Your task to perform on an android device: What is the news today? Image 0: 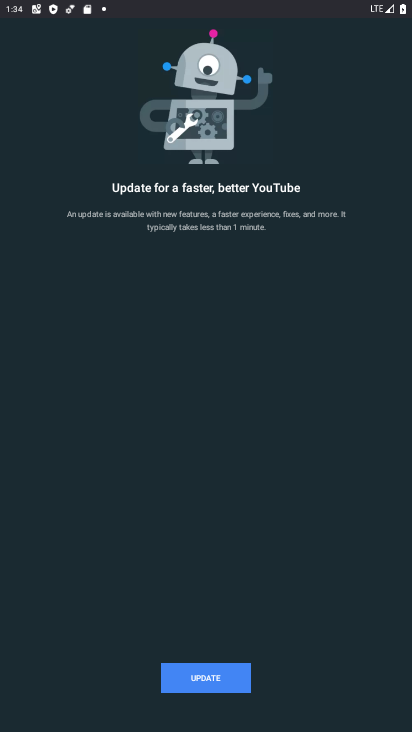
Step 0: press home button
Your task to perform on an android device: What is the news today? Image 1: 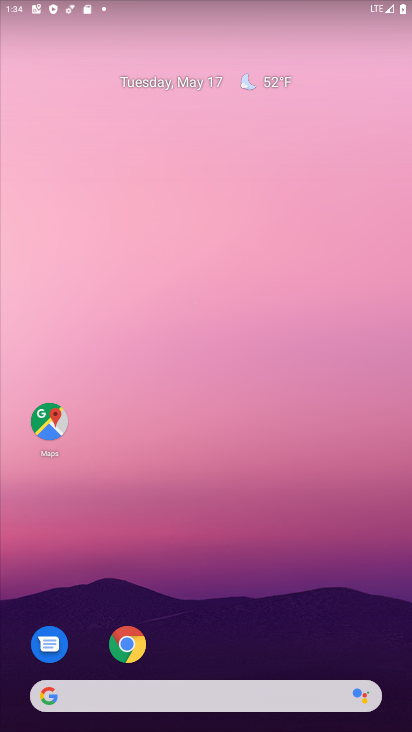
Step 1: task complete